Your task to perform on an android device: check out phone information Image 0: 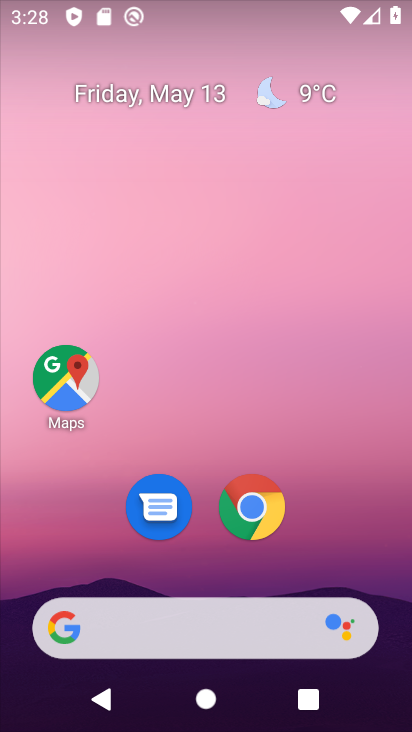
Step 0: drag from (338, 559) to (359, 24)
Your task to perform on an android device: check out phone information Image 1: 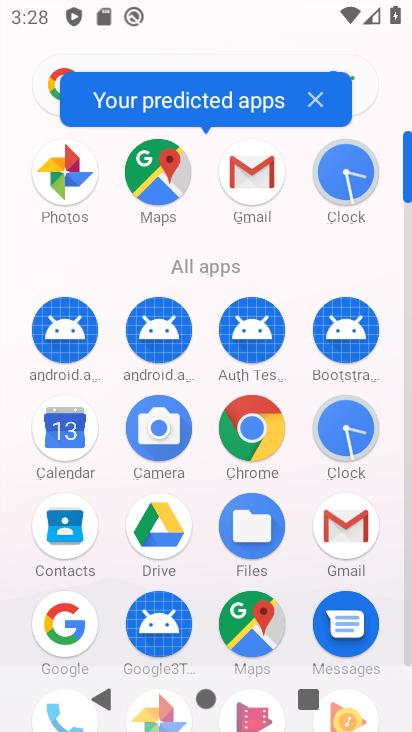
Step 1: drag from (383, 613) to (300, 225)
Your task to perform on an android device: check out phone information Image 2: 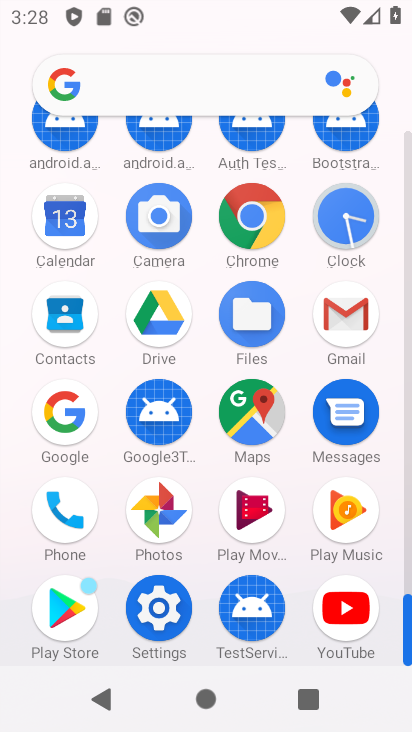
Step 2: click (166, 605)
Your task to perform on an android device: check out phone information Image 3: 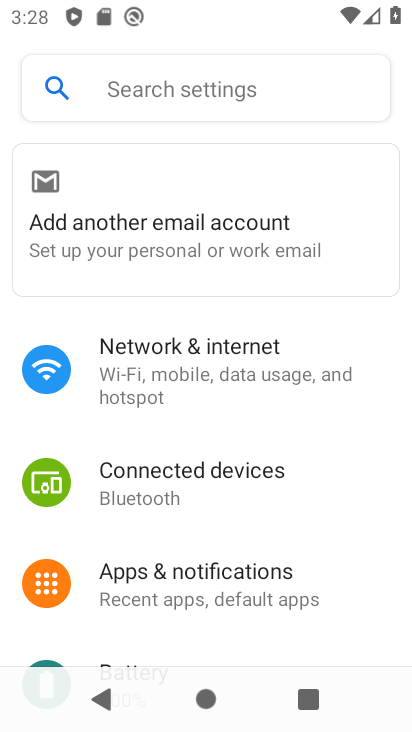
Step 3: drag from (167, 606) to (191, 134)
Your task to perform on an android device: check out phone information Image 4: 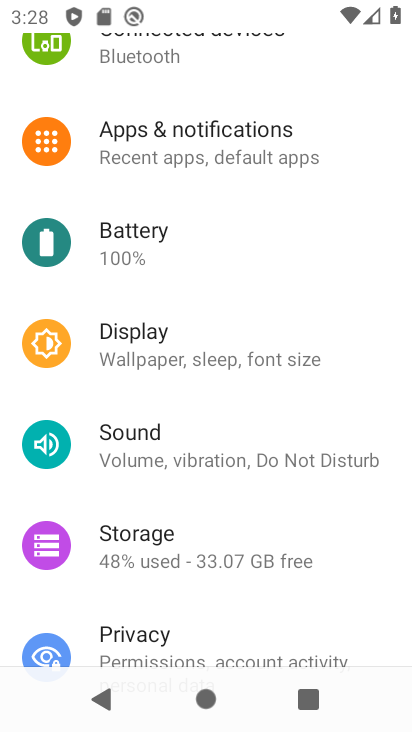
Step 4: drag from (252, 532) to (227, 292)
Your task to perform on an android device: check out phone information Image 5: 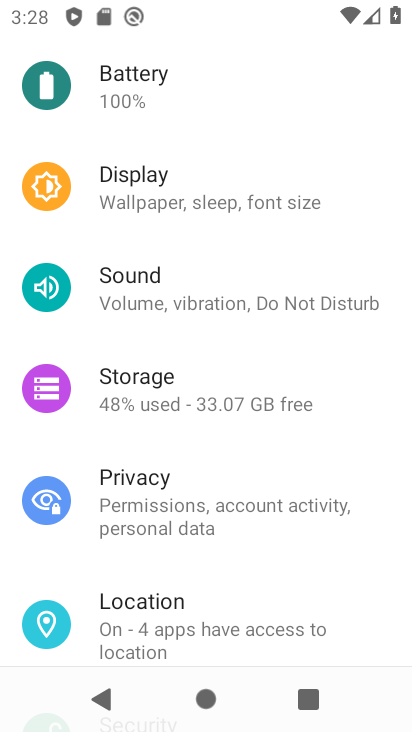
Step 5: drag from (235, 575) to (197, 218)
Your task to perform on an android device: check out phone information Image 6: 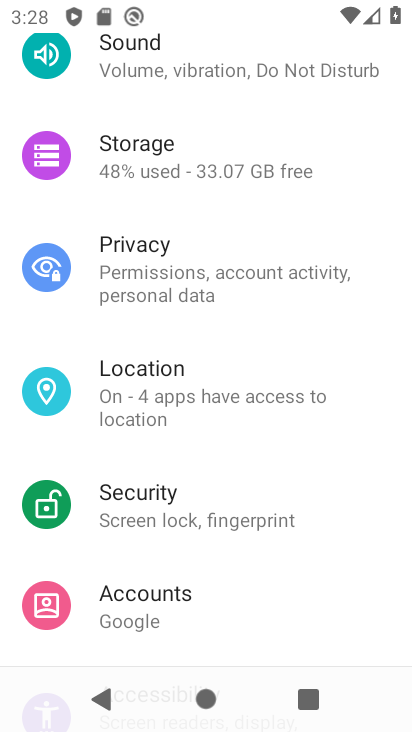
Step 6: drag from (208, 620) to (206, 199)
Your task to perform on an android device: check out phone information Image 7: 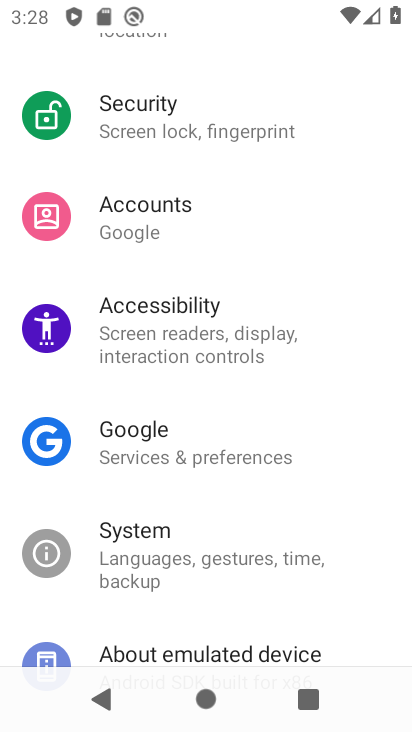
Step 7: drag from (195, 601) to (174, 205)
Your task to perform on an android device: check out phone information Image 8: 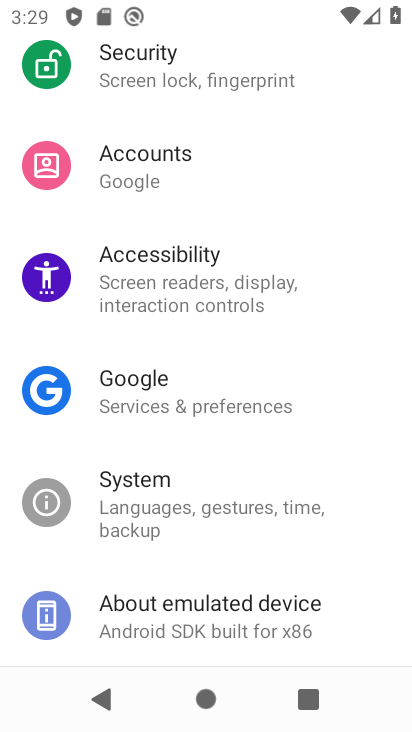
Step 8: click (130, 614)
Your task to perform on an android device: check out phone information Image 9: 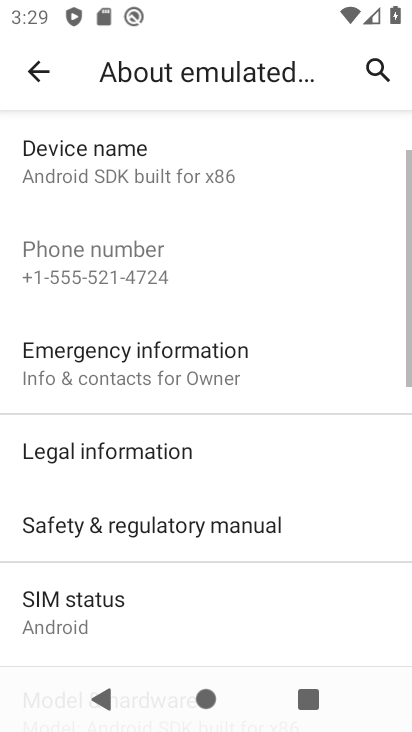
Step 9: task complete